Your task to perform on an android device: change text size in settings app Image 0: 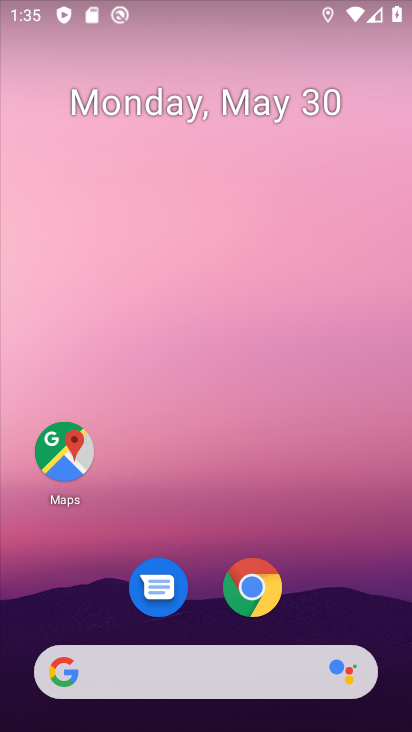
Step 0: drag from (175, 725) to (205, 30)
Your task to perform on an android device: change text size in settings app Image 1: 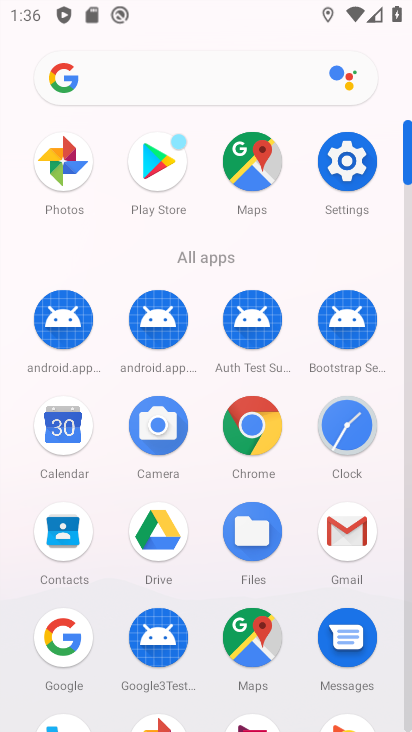
Step 1: click (355, 169)
Your task to perform on an android device: change text size in settings app Image 2: 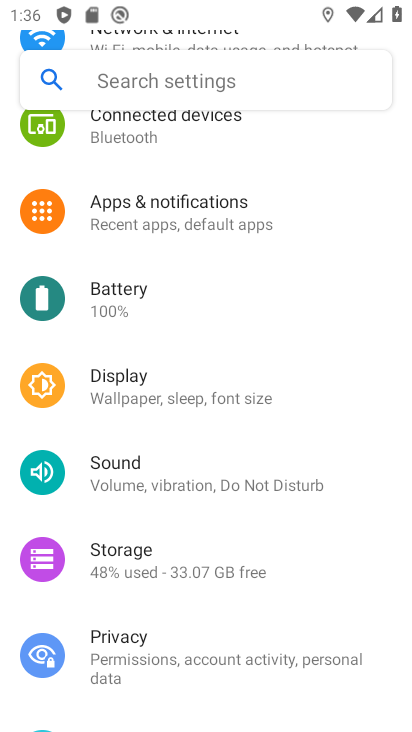
Step 2: click (201, 385)
Your task to perform on an android device: change text size in settings app Image 3: 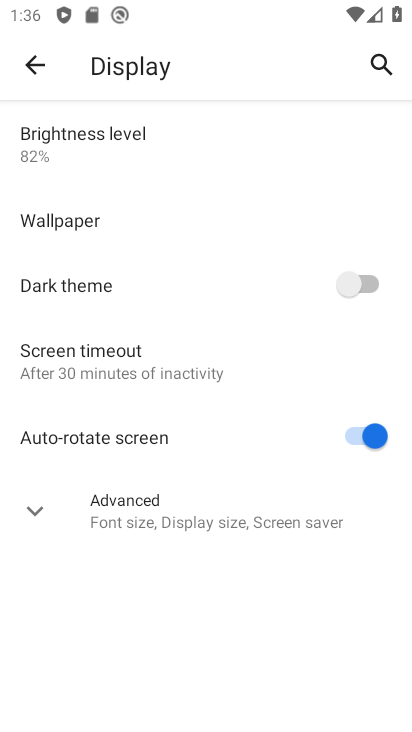
Step 3: click (129, 527)
Your task to perform on an android device: change text size in settings app Image 4: 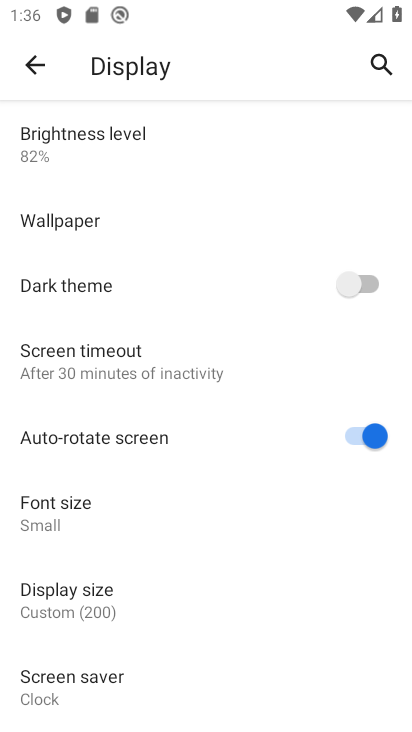
Step 4: click (117, 523)
Your task to perform on an android device: change text size in settings app Image 5: 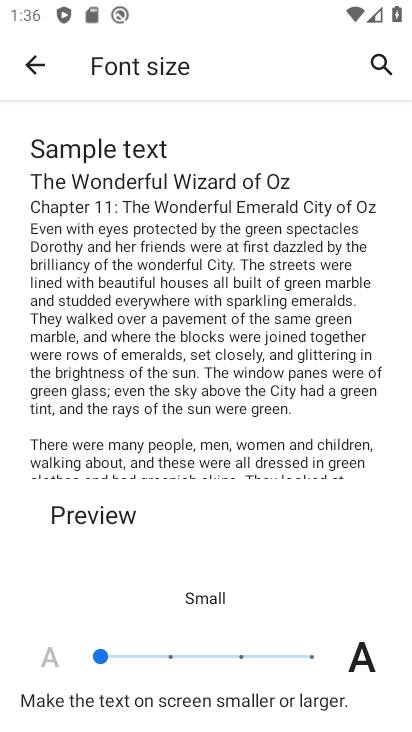
Step 5: click (166, 657)
Your task to perform on an android device: change text size in settings app Image 6: 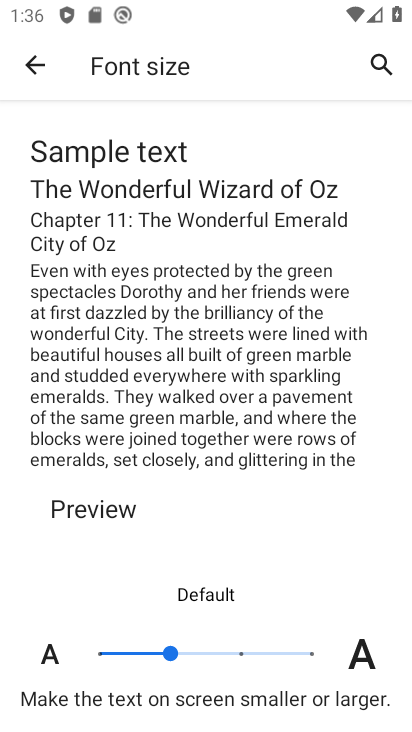
Step 6: task complete